Your task to perform on an android device: turn off priority inbox in the gmail app Image 0: 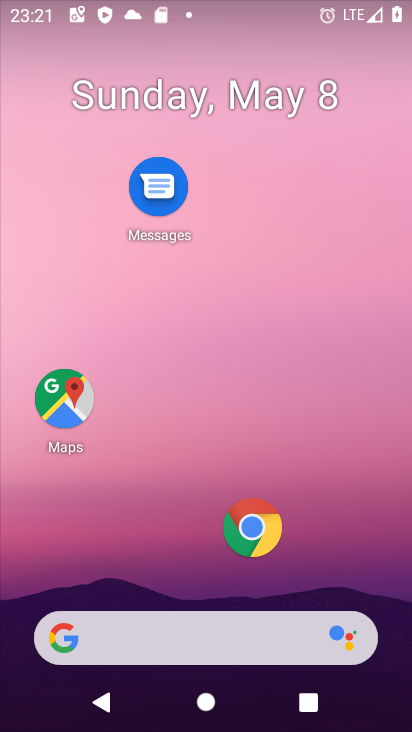
Step 0: drag from (191, 522) to (187, 101)
Your task to perform on an android device: turn off priority inbox in the gmail app Image 1: 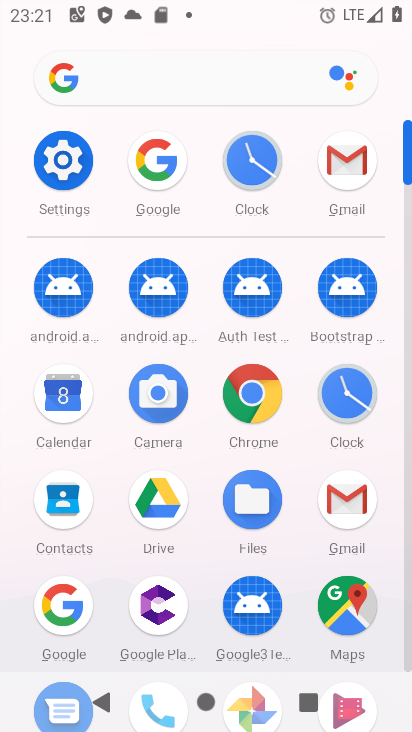
Step 1: click (345, 172)
Your task to perform on an android device: turn off priority inbox in the gmail app Image 2: 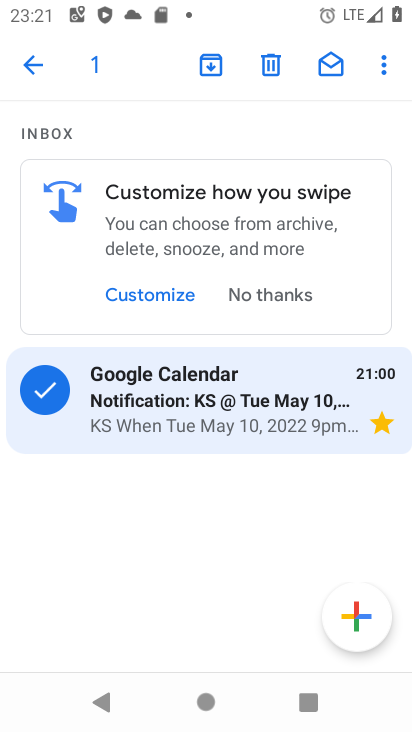
Step 2: press back button
Your task to perform on an android device: turn off priority inbox in the gmail app Image 3: 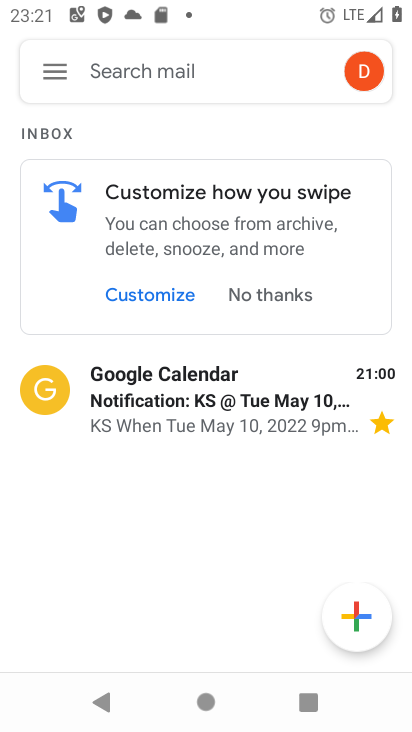
Step 3: press back button
Your task to perform on an android device: turn off priority inbox in the gmail app Image 4: 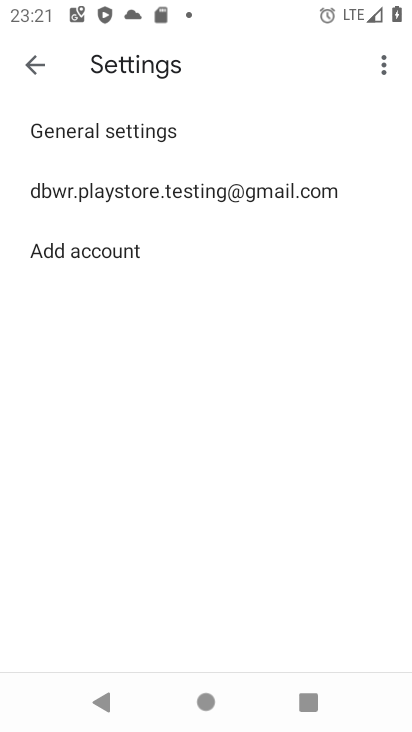
Step 4: press back button
Your task to perform on an android device: turn off priority inbox in the gmail app Image 5: 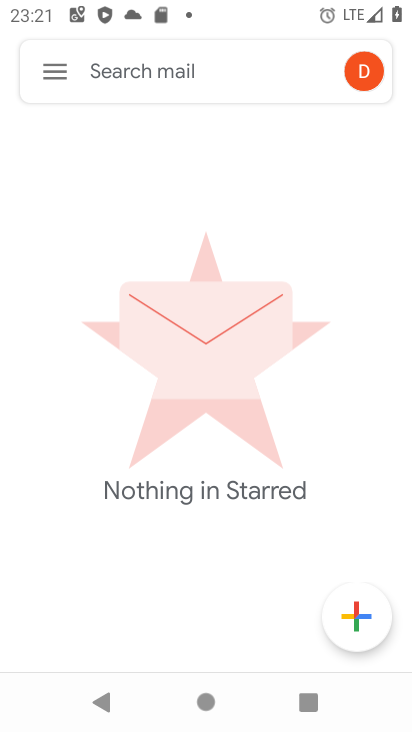
Step 5: click (63, 80)
Your task to perform on an android device: turn off priority inbox in the gmail app Image 6: 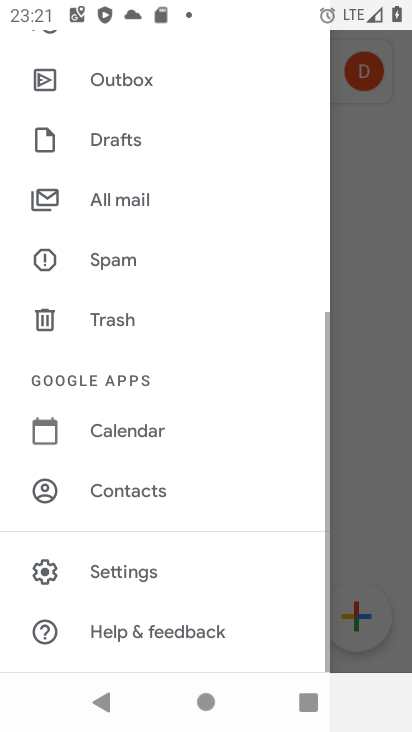
Step 6: drag from (191, 586) to (184, 283)
Your task to perform on an android device: turn off priority inbox in the gmail app Image 7: 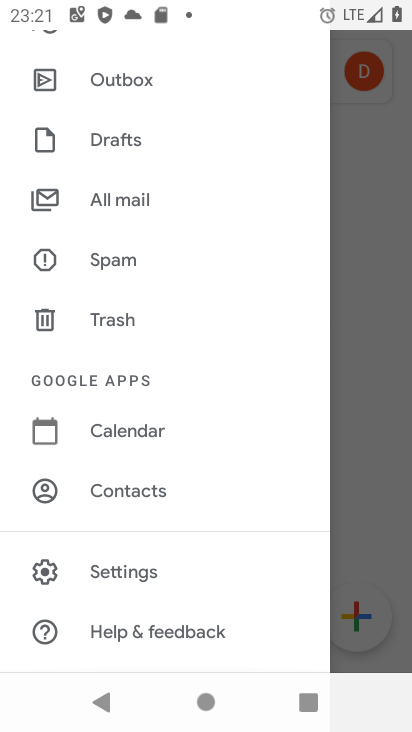
Step 7: click (171, 568)
Your task to perform on an android device: turn off priority inbox in the gmail app Image 8: 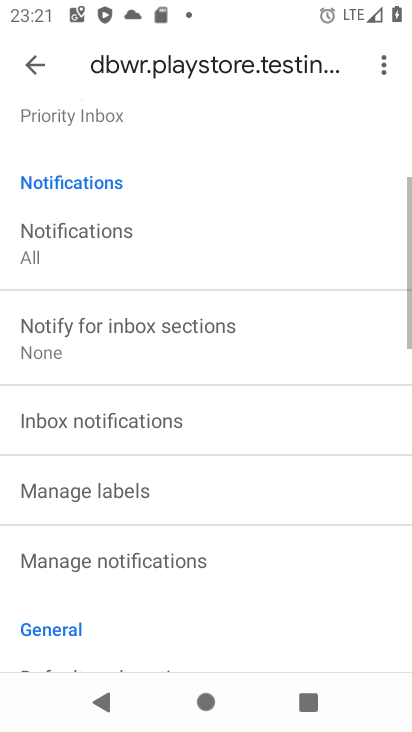
Step 8: drag from (159, 499) to (214, 643)
Your task to perform on an android device: turn off priority inbox in the gmail app Image 9: 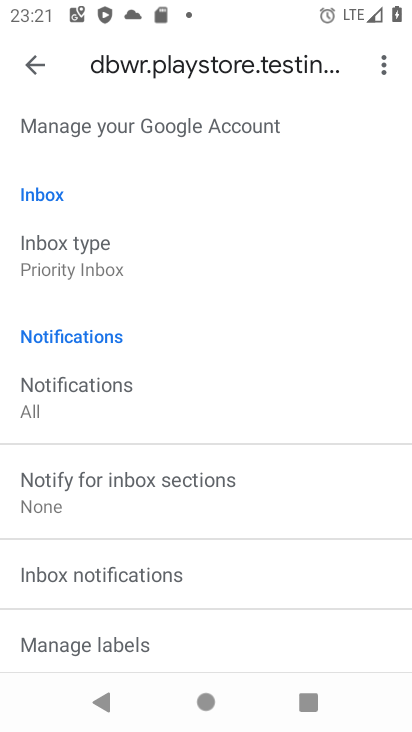
Step 9: click (86, 261)
Your task to perform on an android device: turn off priority inbox in the gmail app Image 10: 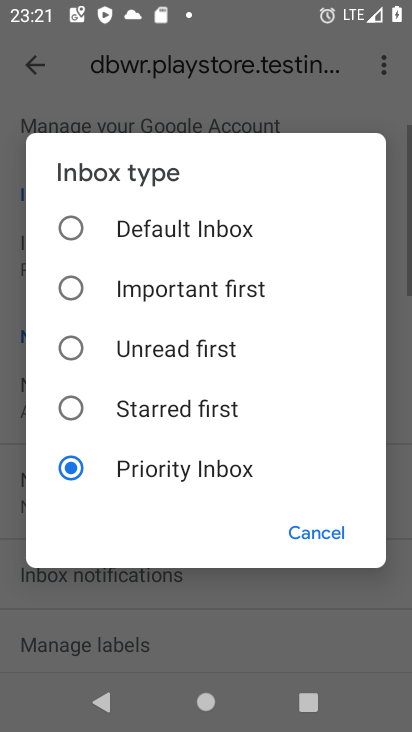
Step 10: click (71, 226)
Your task to perform on an android device: turn off priority inbox in the gmail app Image 11: 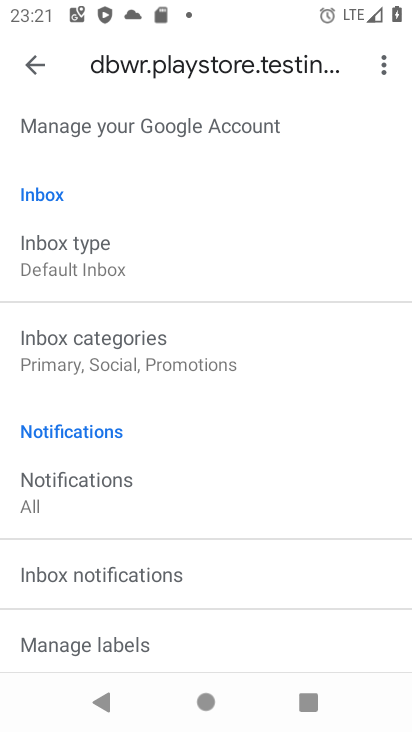
Step 11: task complete